Your task to perform on an android device: Open wifi settings Image 0: 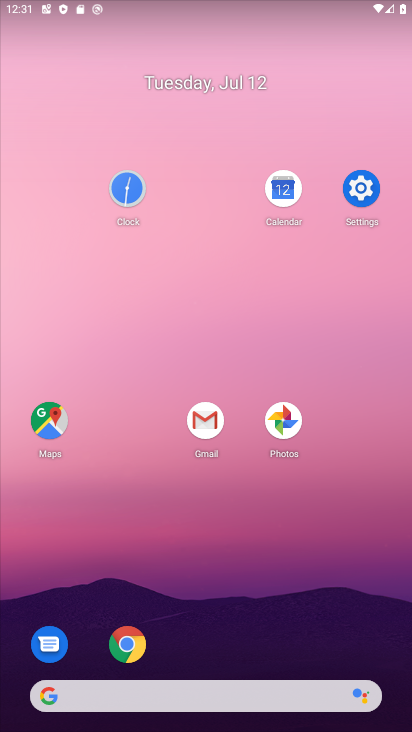
Step 0: click (364, 179)
Your task to perform on an android device: Open wifi settings Image 1: 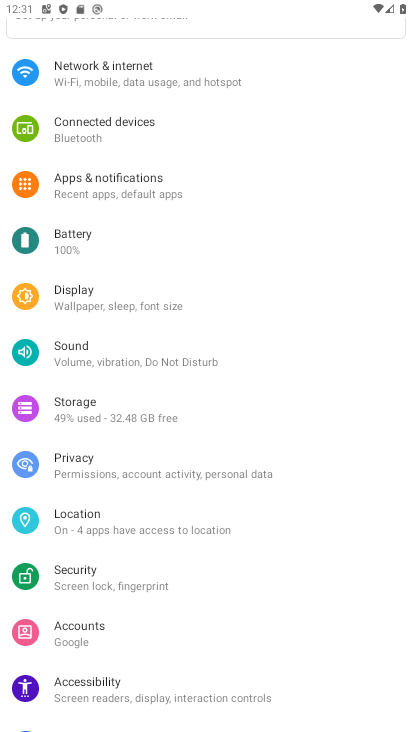
Step 1: click (128, 69)
Your task to perform on an android device: Open wifi settings Image 2: 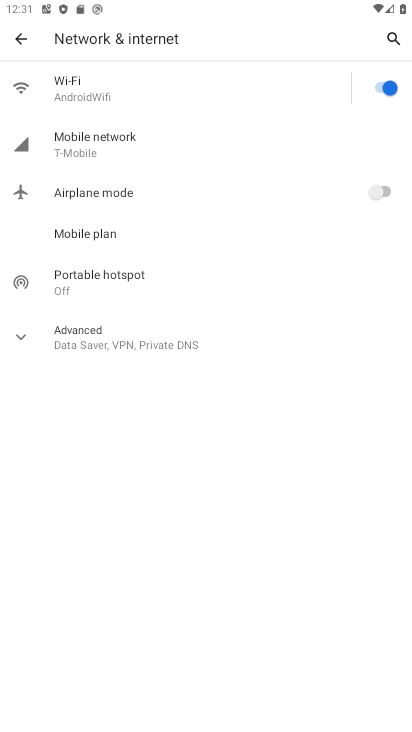
Step 2: click (78, 76)
Your task to perform on an android device: Open wifi settings Image 3: 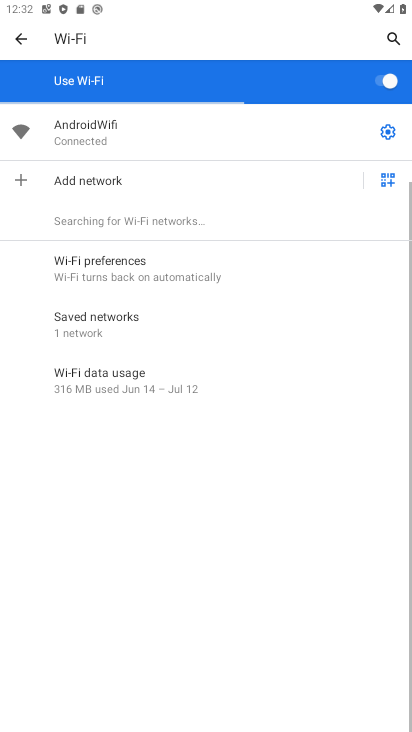
Step 3: task complete